Your task to perform on an android device: turn on the 12-hour format for clock Image 0: 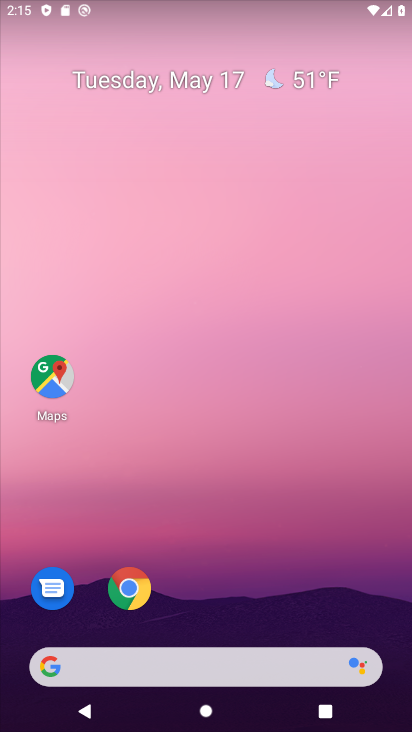
Step 0: drag from (299, 534) to (176, 14)
Your task to perform on an android device: turn on the 12-hour format for clock Image 1: 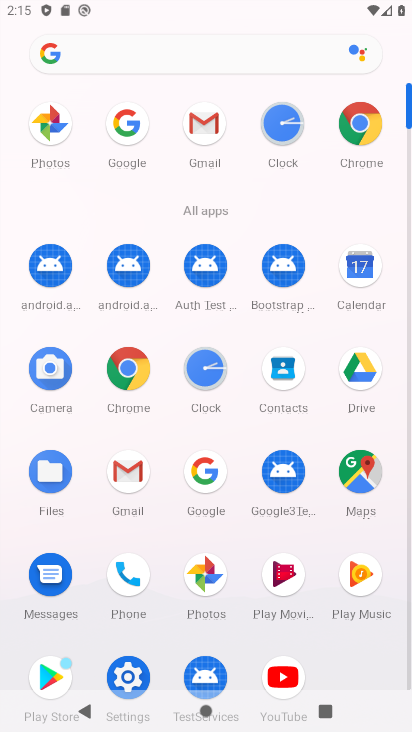
Step 1: click (291, 112)
Your task to perform on an android device: turn on the 12-hour format for clock Image 2: 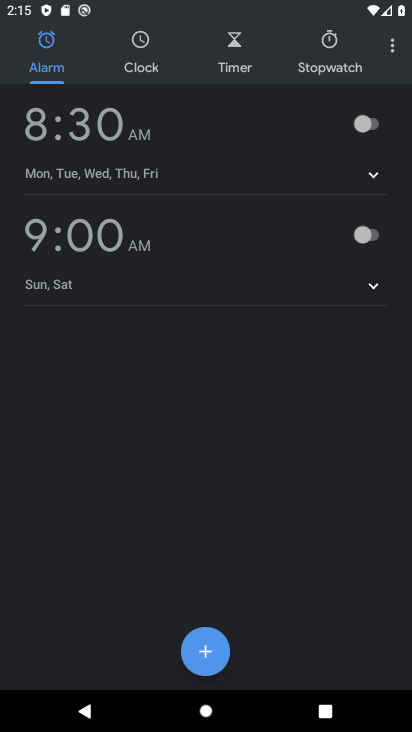
Step 2: click (395, 39)
Your task to perform on an android device: turn on the 12-hour format for clock Image 3: 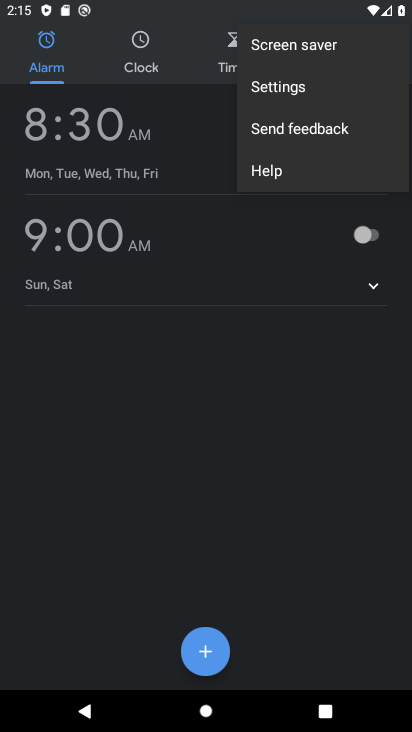
Step 3: click (331, 83)
Your task to perform on an android device: turn on the 12-hour format for clock Image 4: 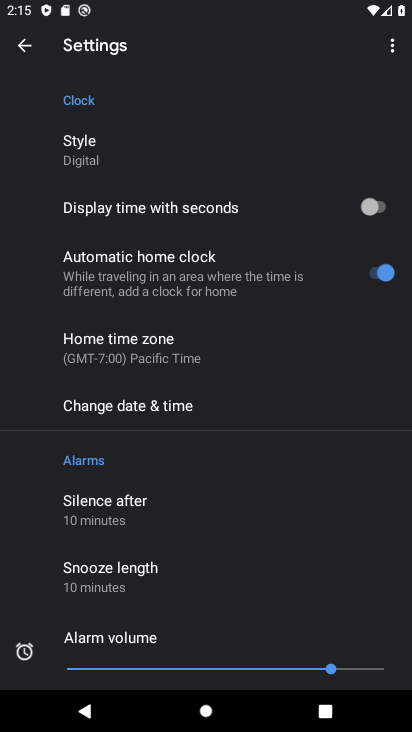
Step 4: click (152, 386)
Your task to perform on an android device: turn on the 12-hour format for clock Image 5: 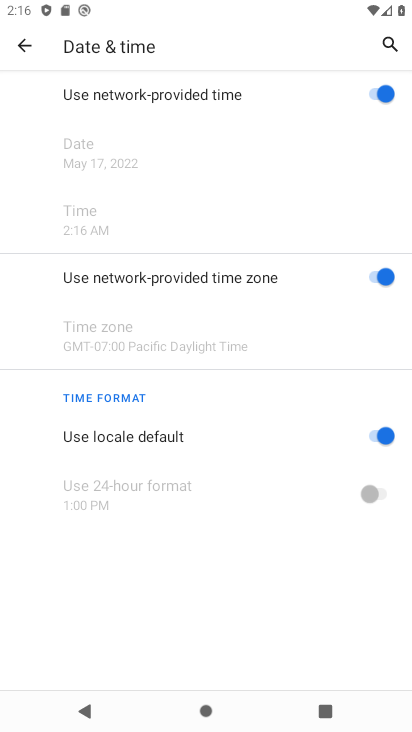
Step 5: task complete